Your task to perform on an android device: change the clock display to analog Image 0: 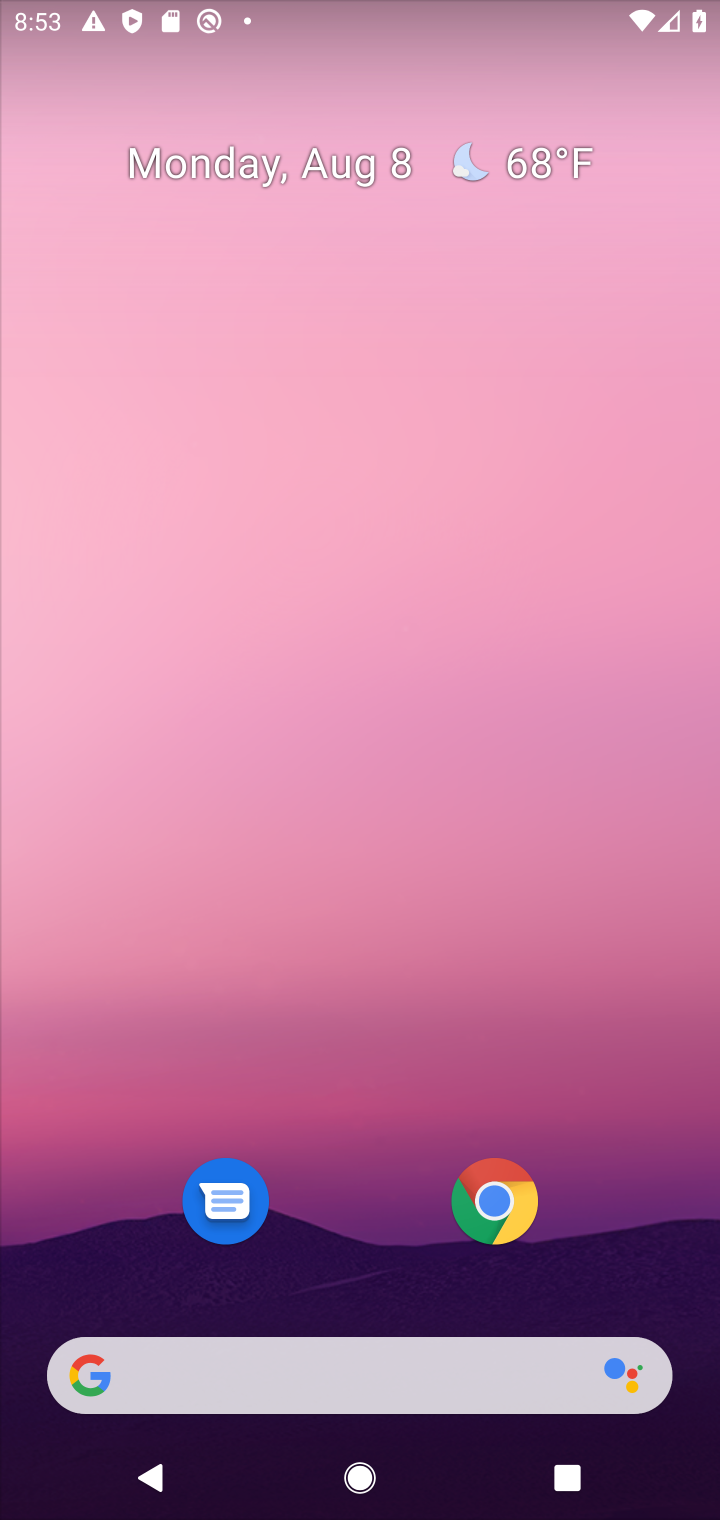
Step 0: press home button
Your task to perform on an android device: change the clock display to analog Image 1: 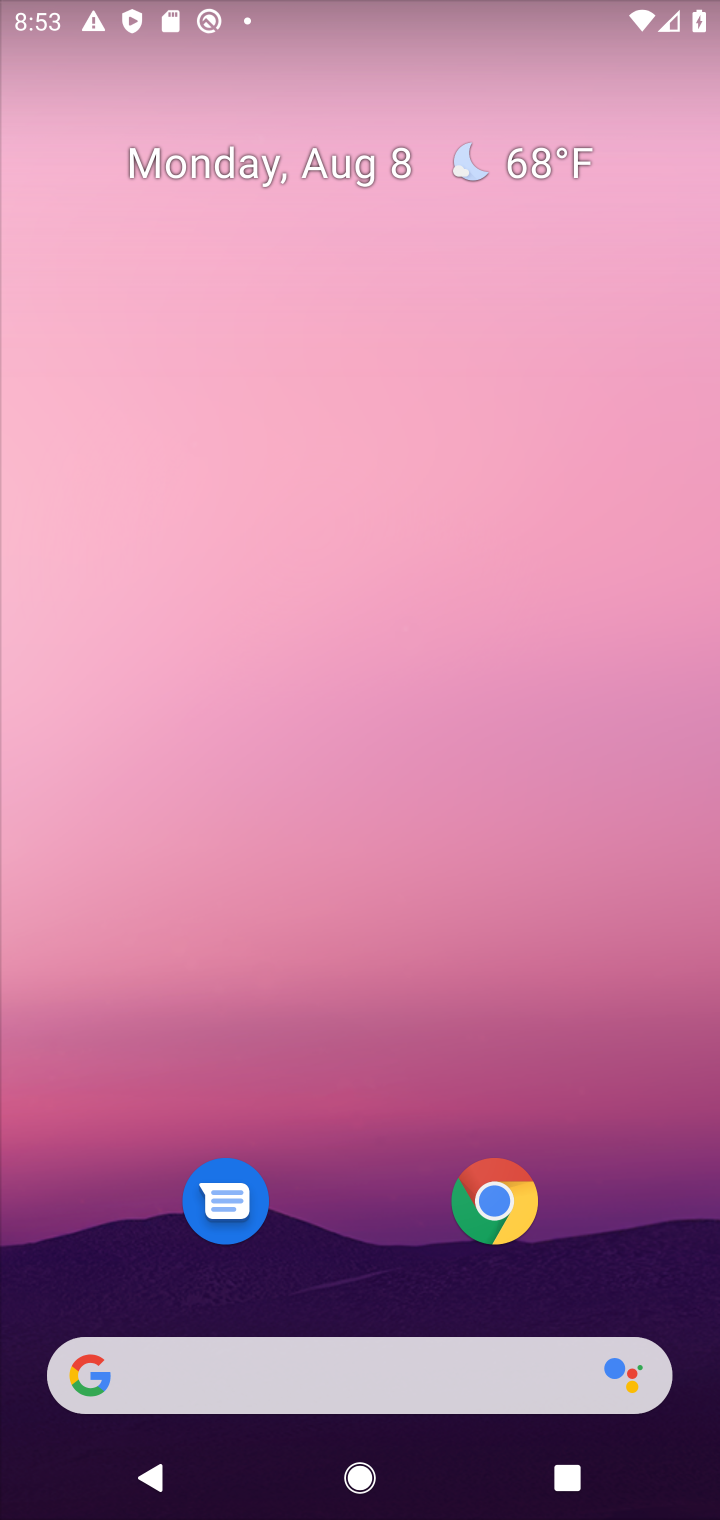
Step 1: drag from (604, 1274) to (608, 260)
Your task to perform on an android device: change the clock display to analog Image 2: 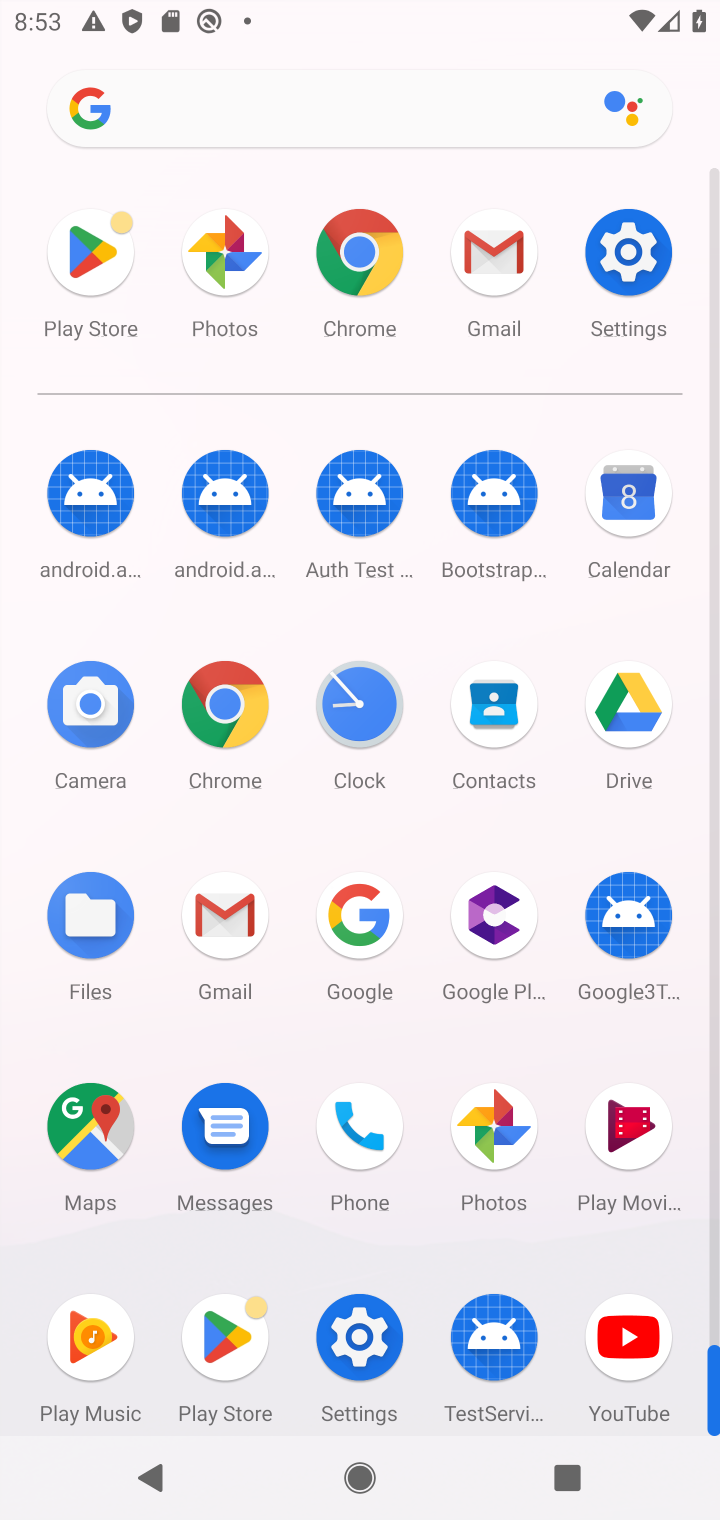
Step 2: click (352, 708)
Your task to perform on an android device: change the clock display to analog Image 3: 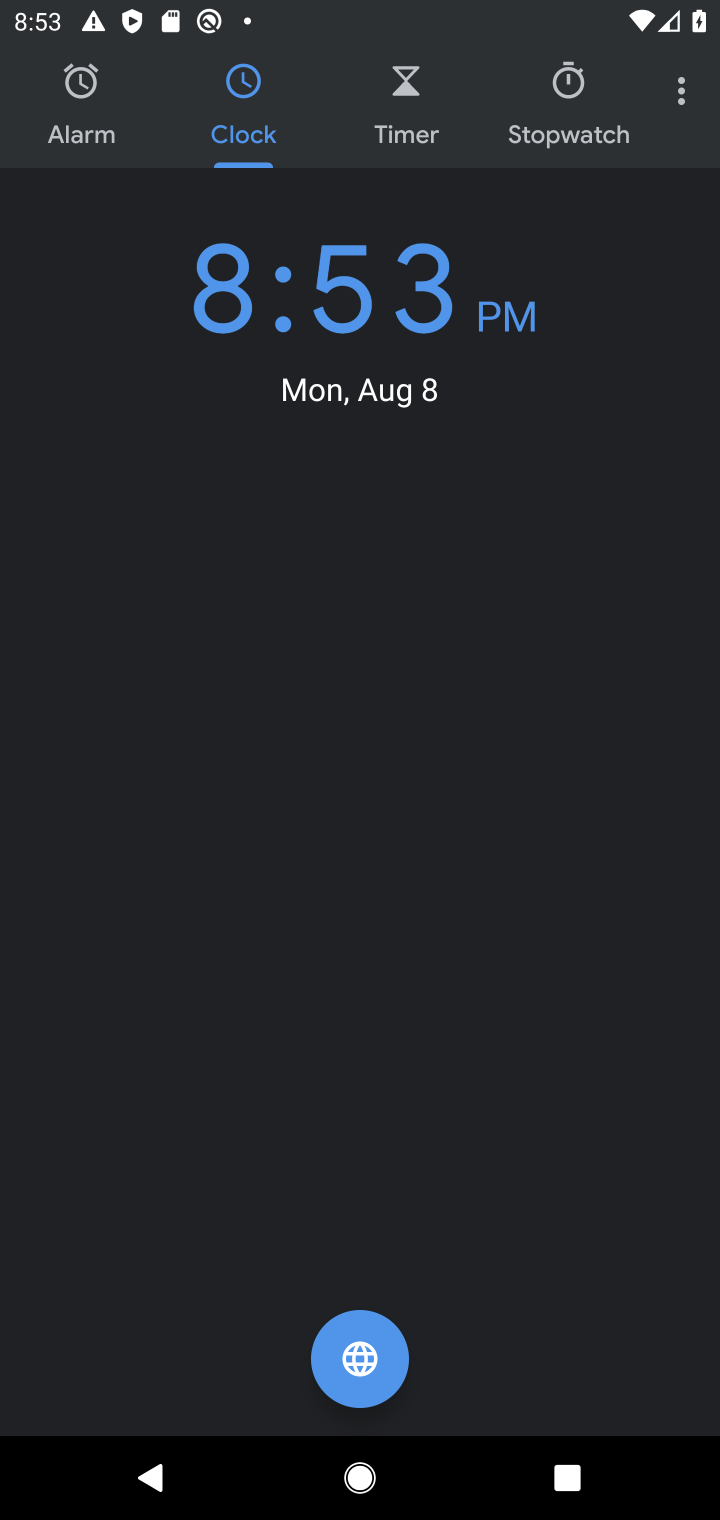
Step 3: click (682, 104)
Your task to perform on an android device: change the clock display to analog Image 4: 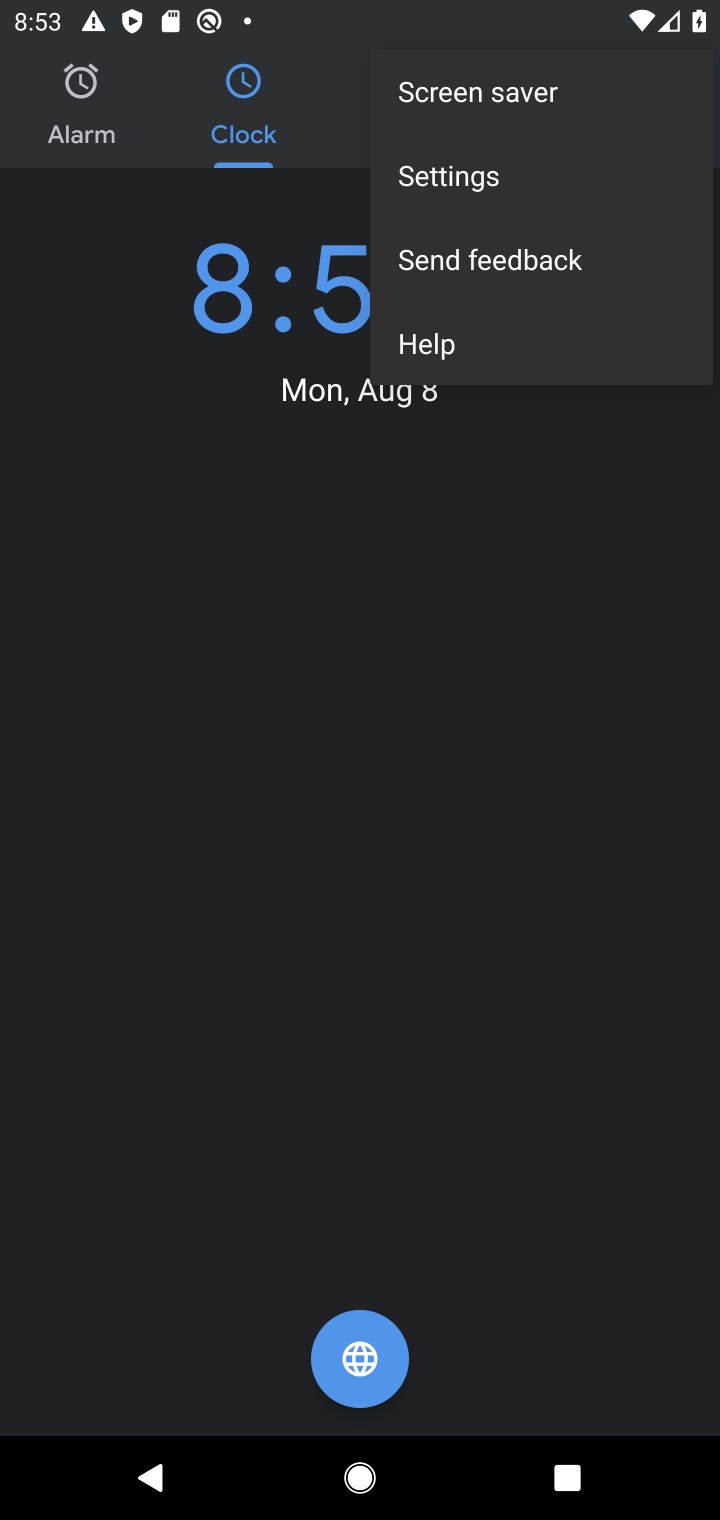
Step 4: click (493, 181)
Your task to perform on an android device: change the clock display to analog Image 5: 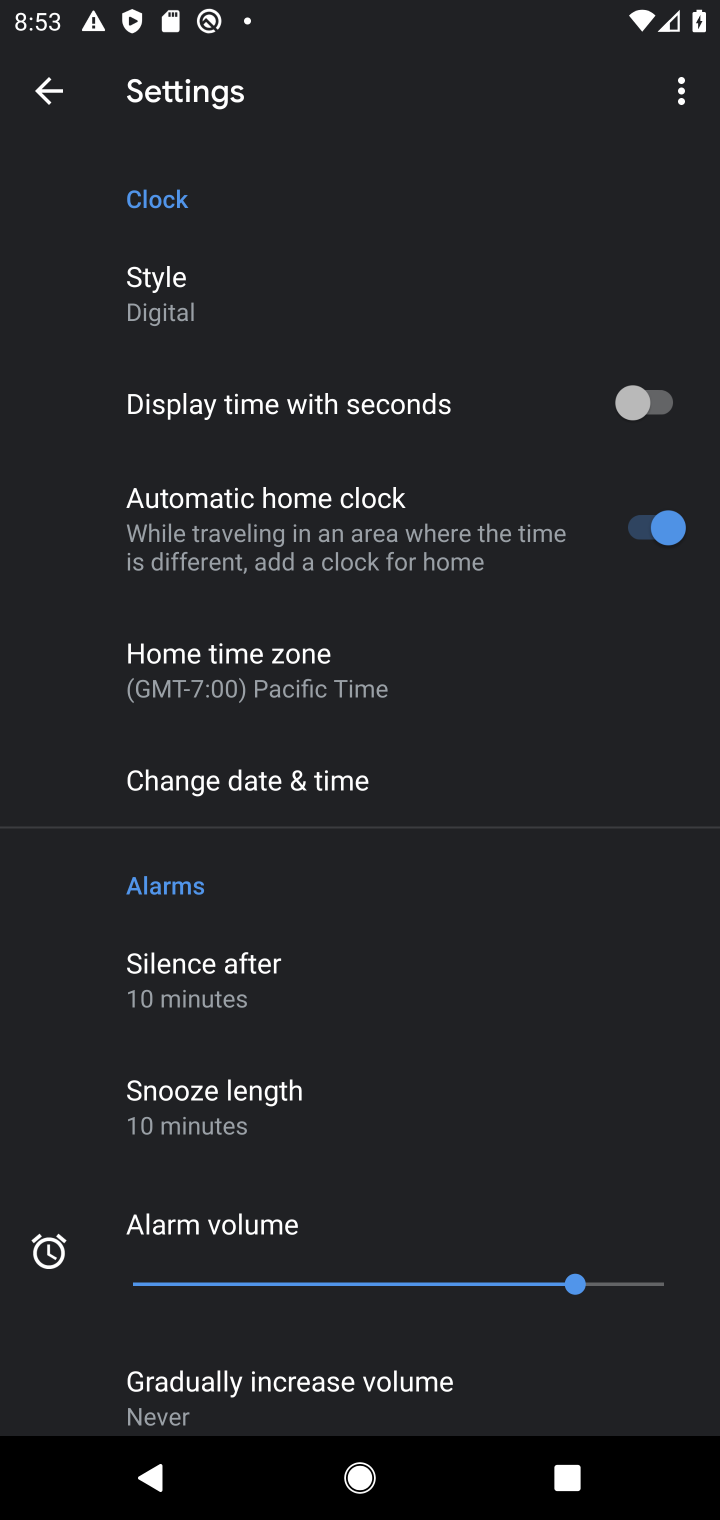
Step 5: drag from (540, 868) to (568, 645)
Your task to perform on an android device: change the clock display to analog Image 6: 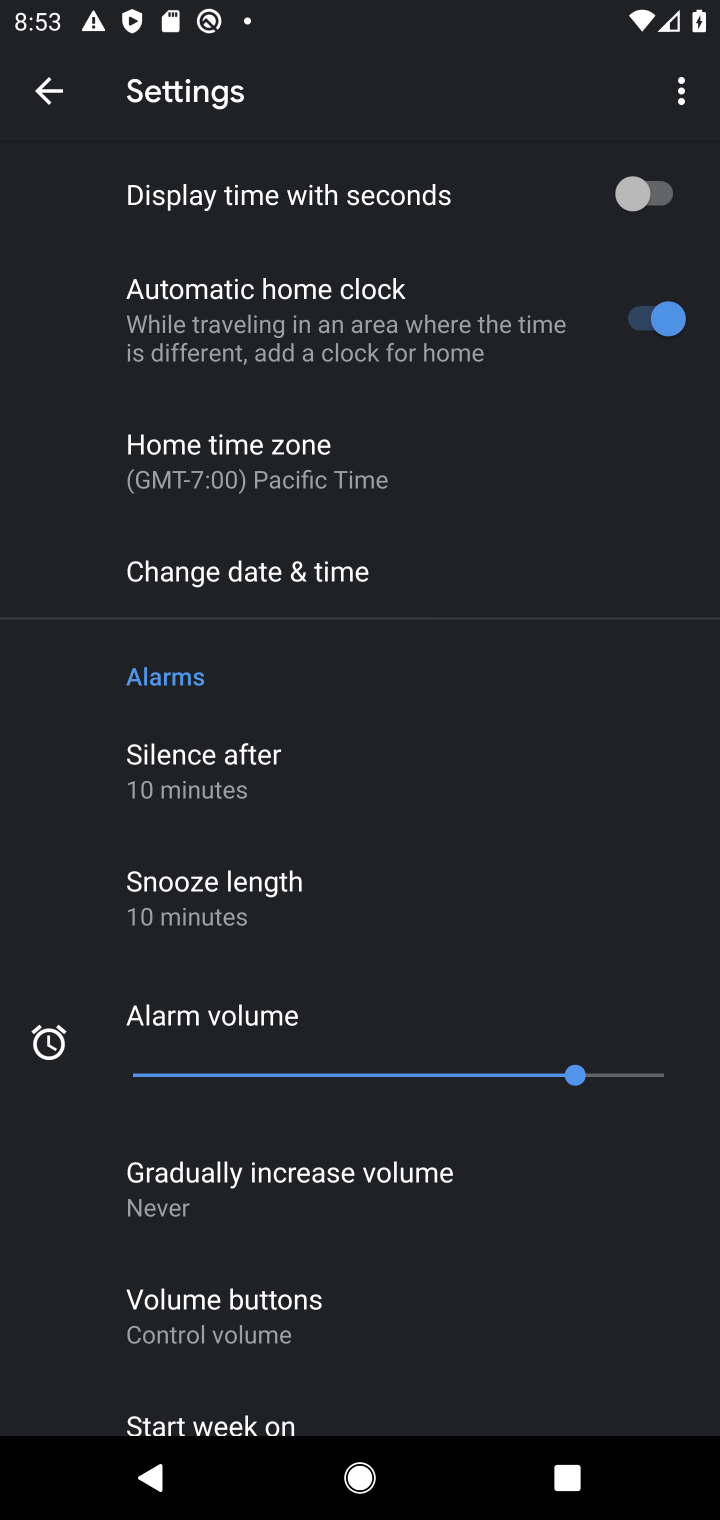
Step 6: drag from (542, 881) to (589, 564)
Your task to perform on an android device: change the clock display to analog Image 7: 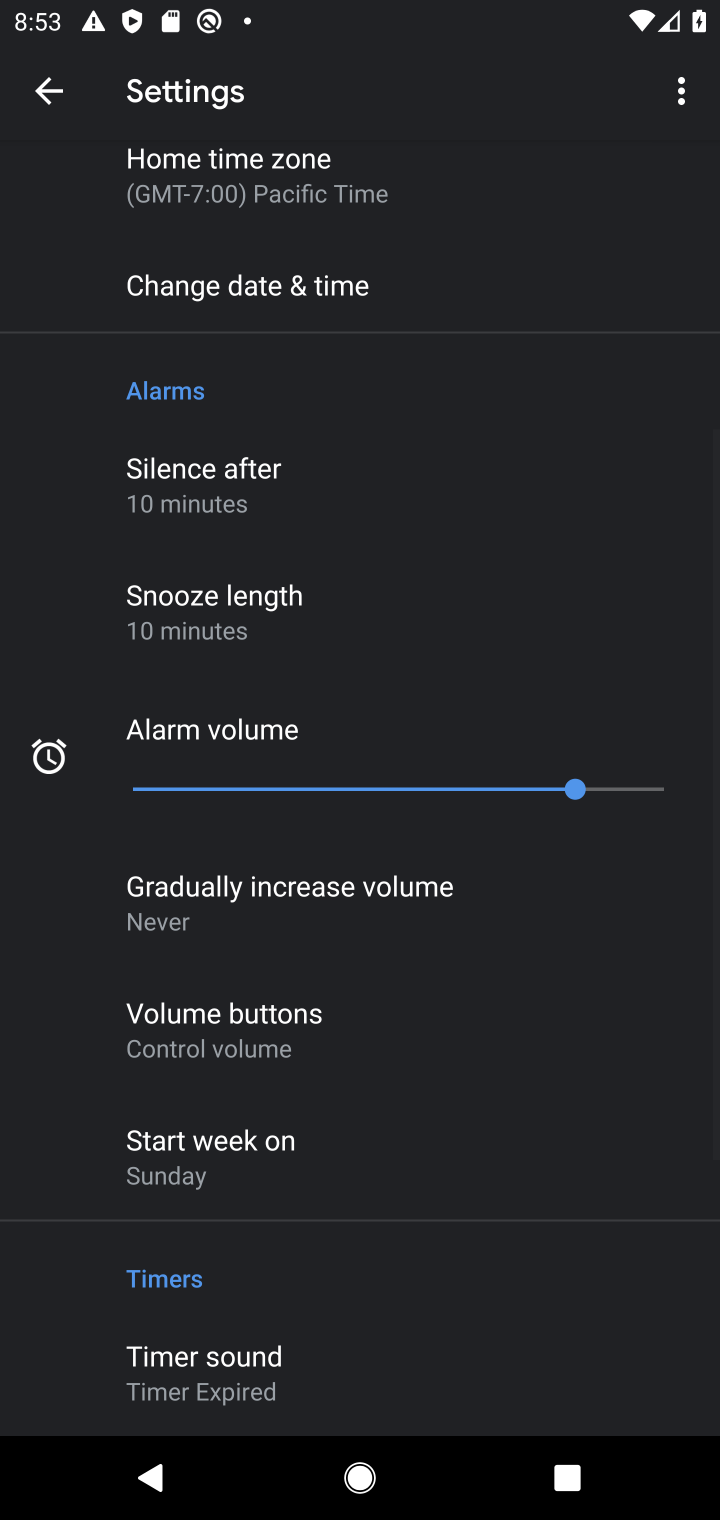
Step 7: drag from (571, 981) to (603, 695)
Your task to perform on an android device: change the clock display to analog Image 8: 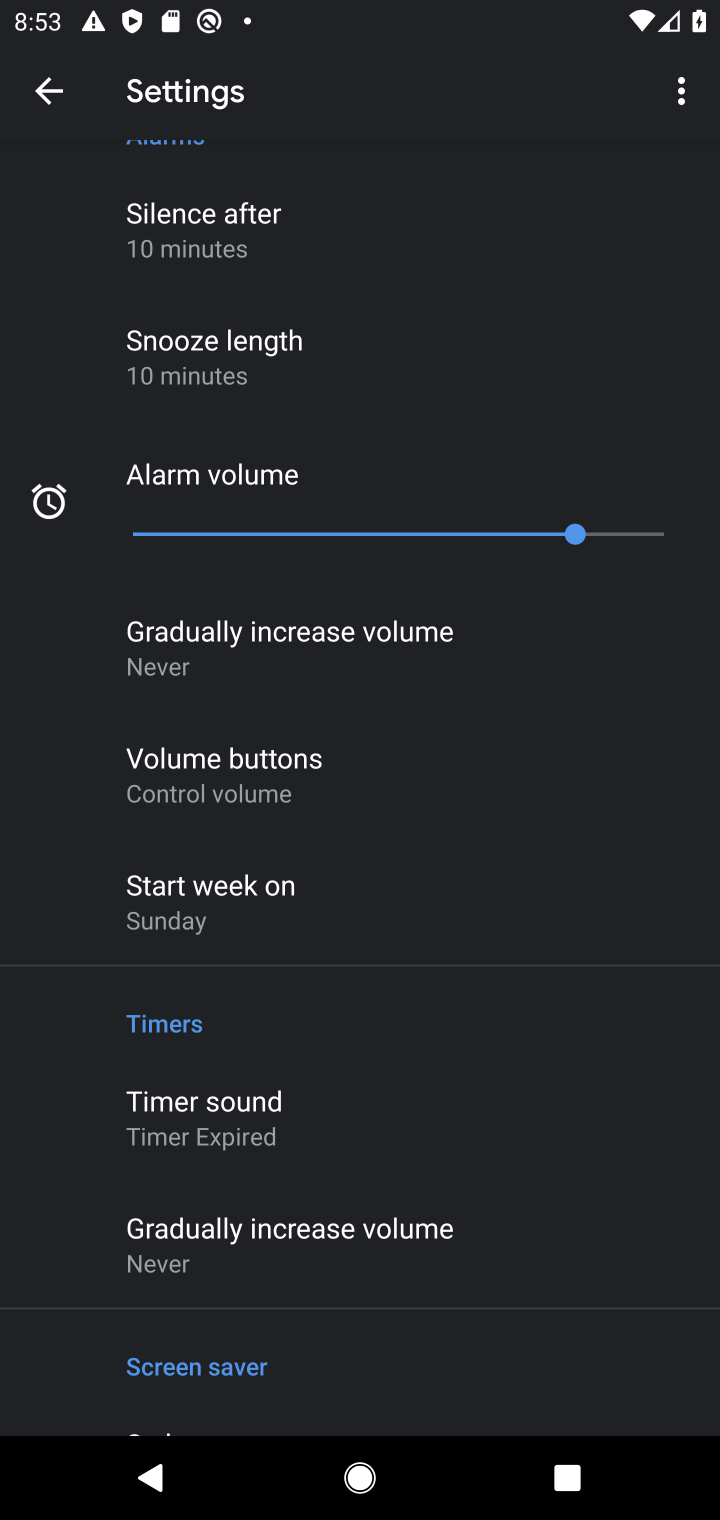
Step 8: drag from (599, 783) to (606, 669)
Your task to perform on an android device: change the clock display to analog Image 9: 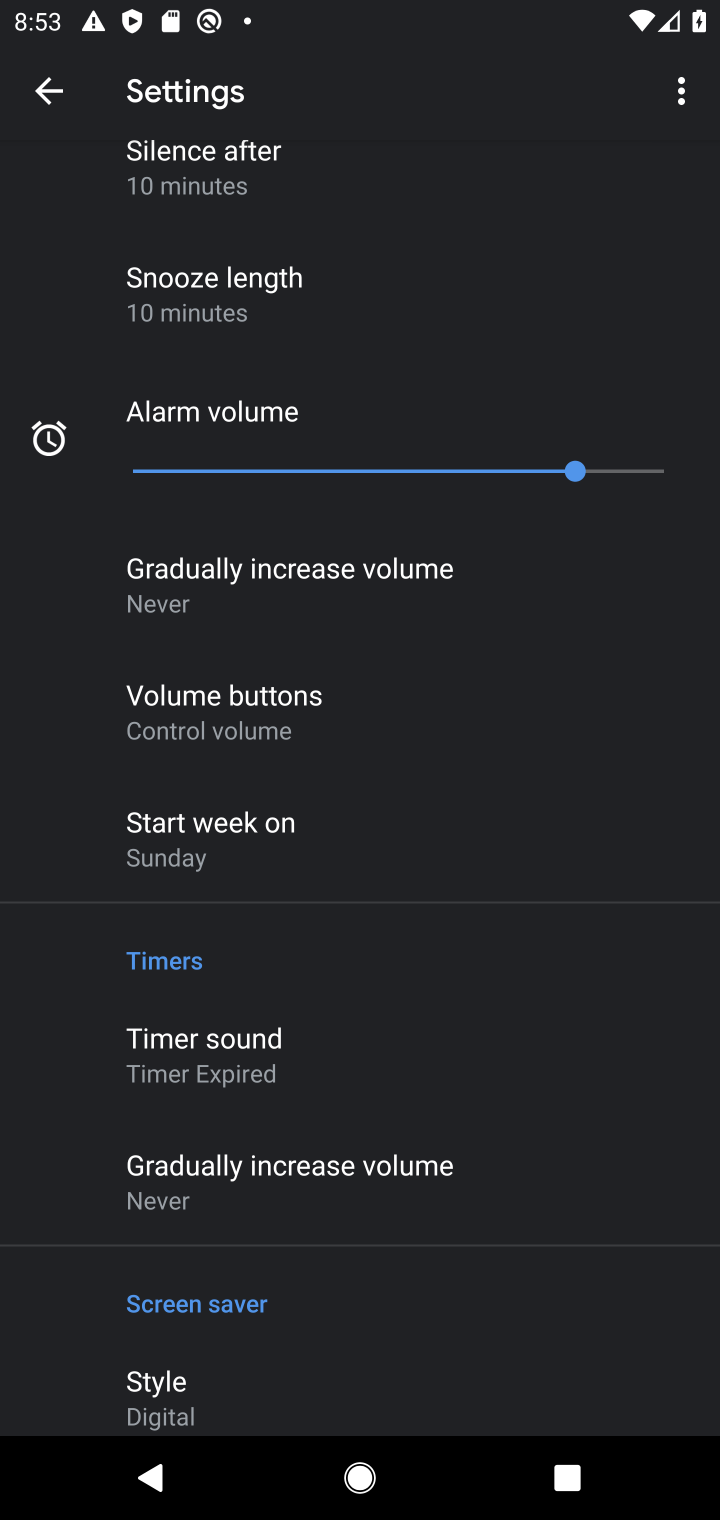
Step 9: drag from (631, 534) to (629, 741)
Your task to perform on an android device: change the clock display to analog Image 10: 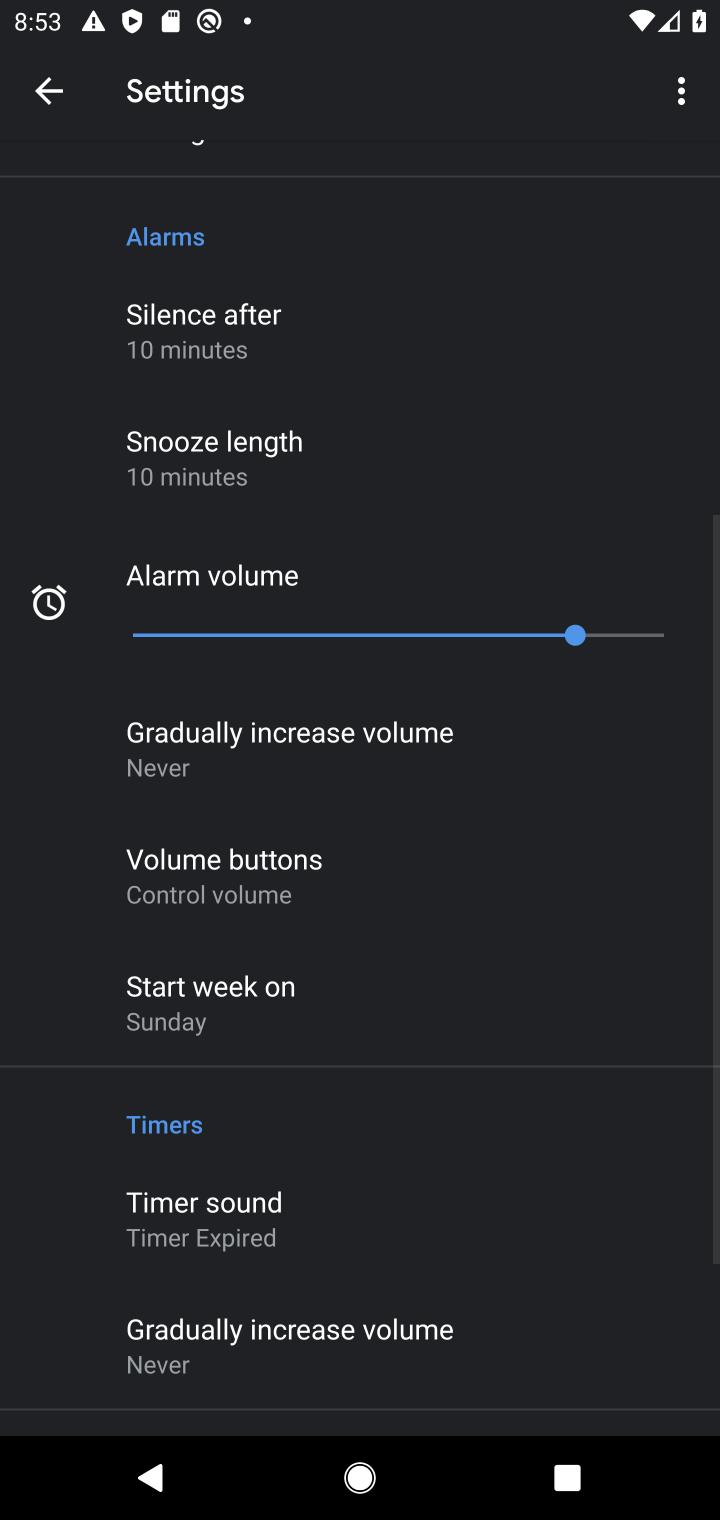
Step 10: drag from (623, 415) to (627, 729)
Your task to perform on an android device: change the clock display to analog Image 11: 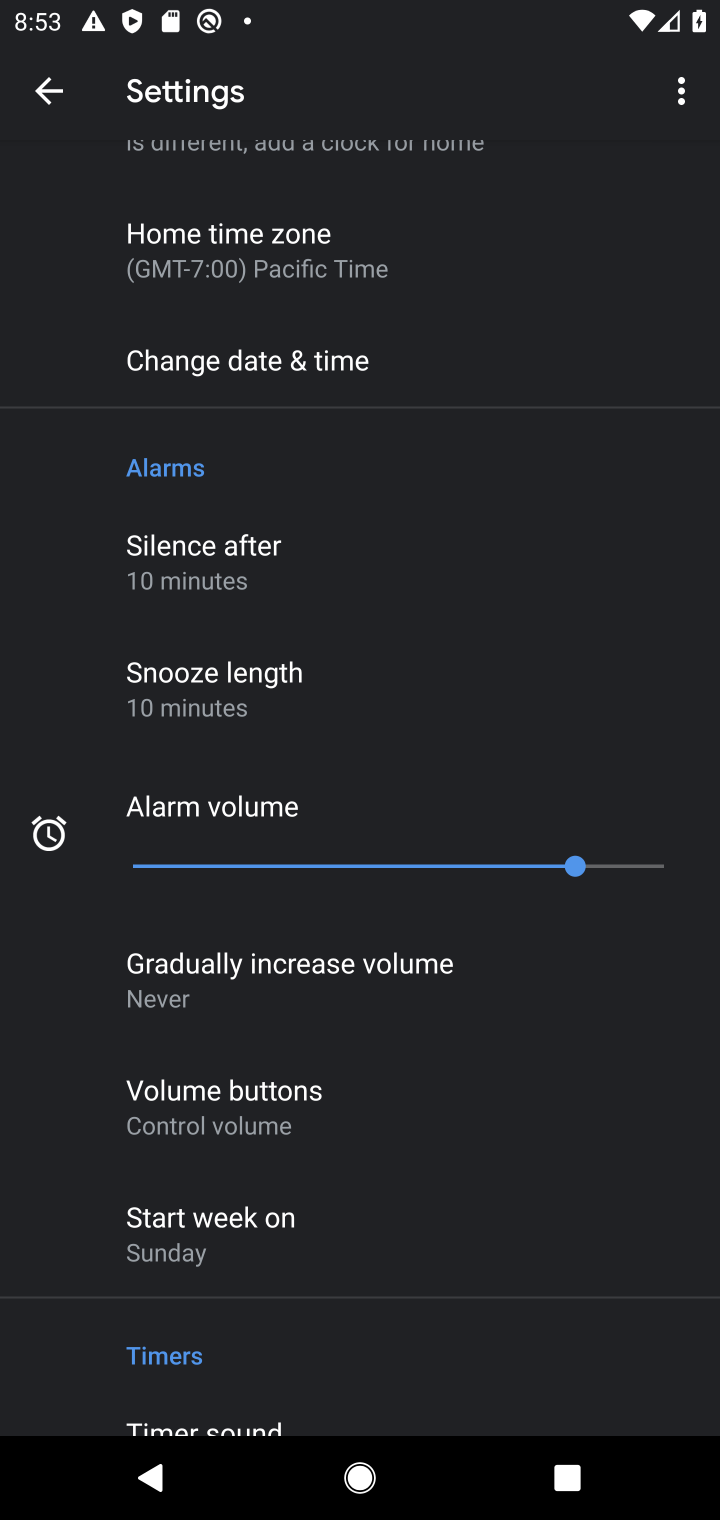
Step 11: drag from (621, 500) to (631, 716)
Your task to perform on an android device: change the clock display to analog Image 12: 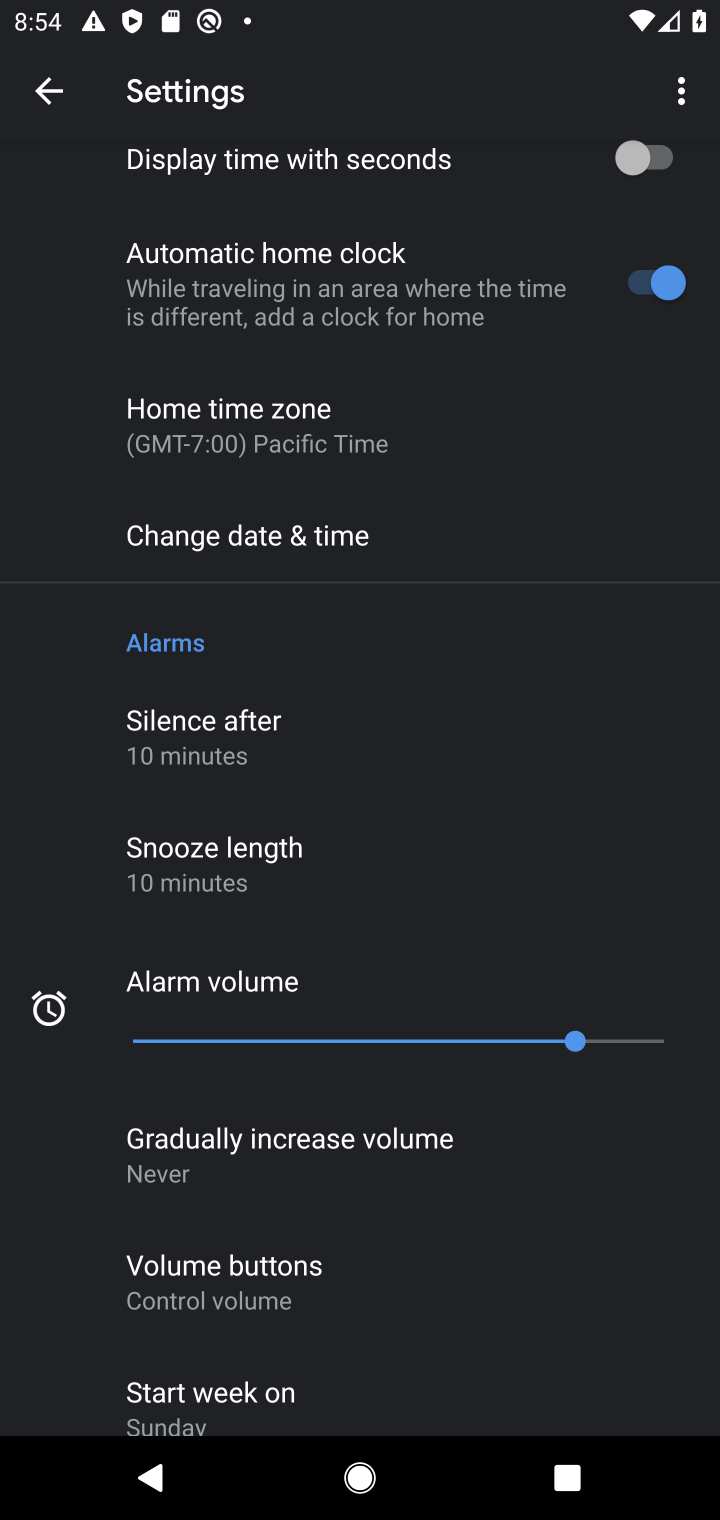
Step 12: drag from (581, 368) to (594, 665)
Your task to perform on an android device: change the clock display to analog Image 13: 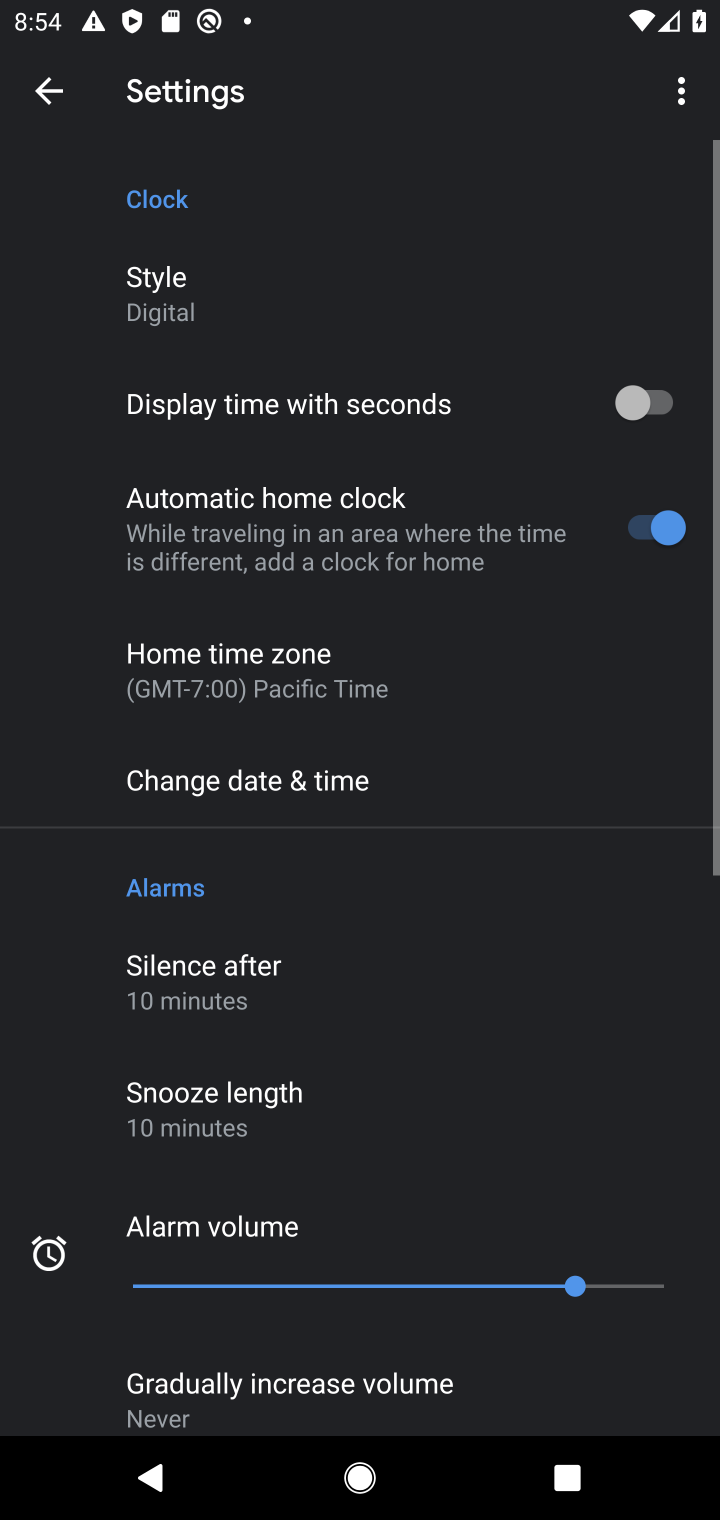
Step 13: drag from (519, 293) to (526, 608)
Your task to perform on an android device: change the clock display to analog Image 14: 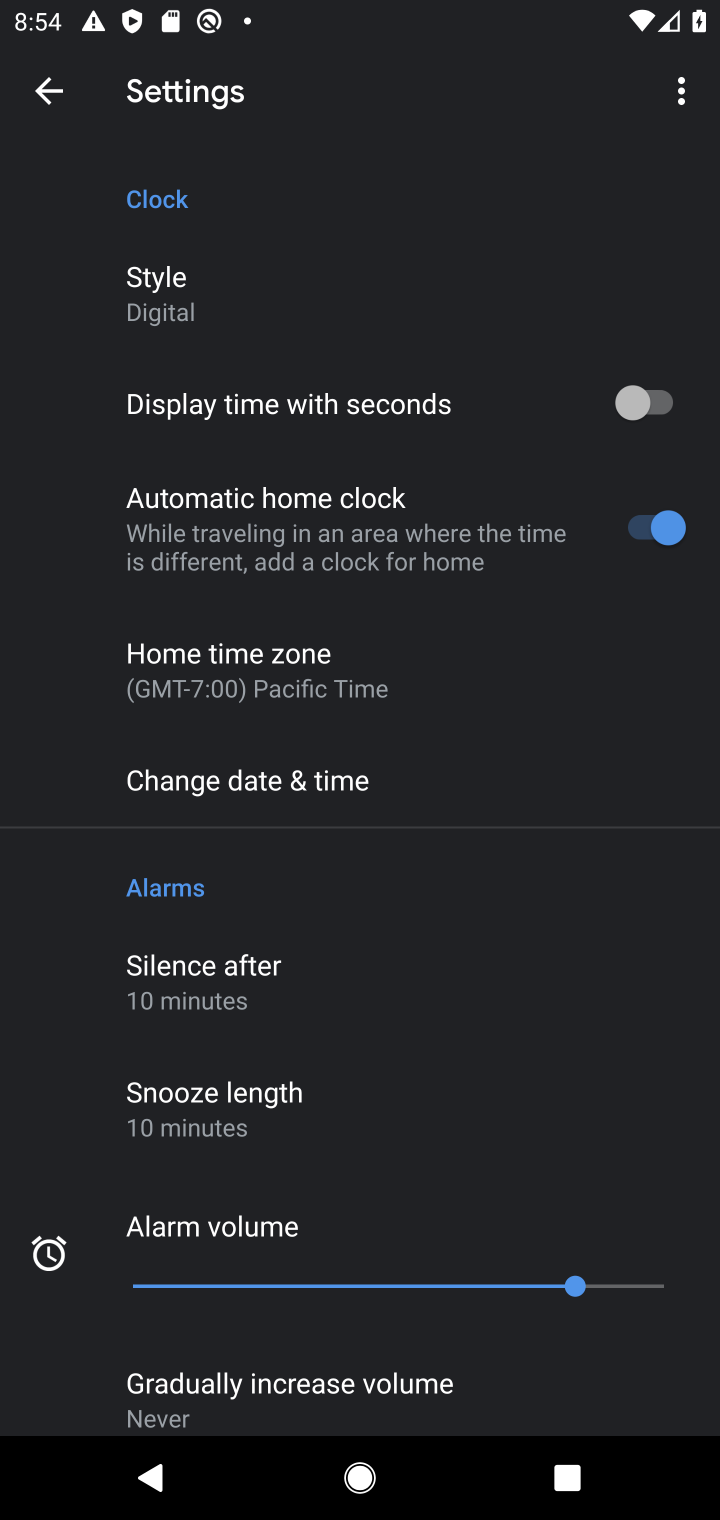
Step 14: click (256, 295)
Your task to perform on an android device: change the clock display to analog Image 15: 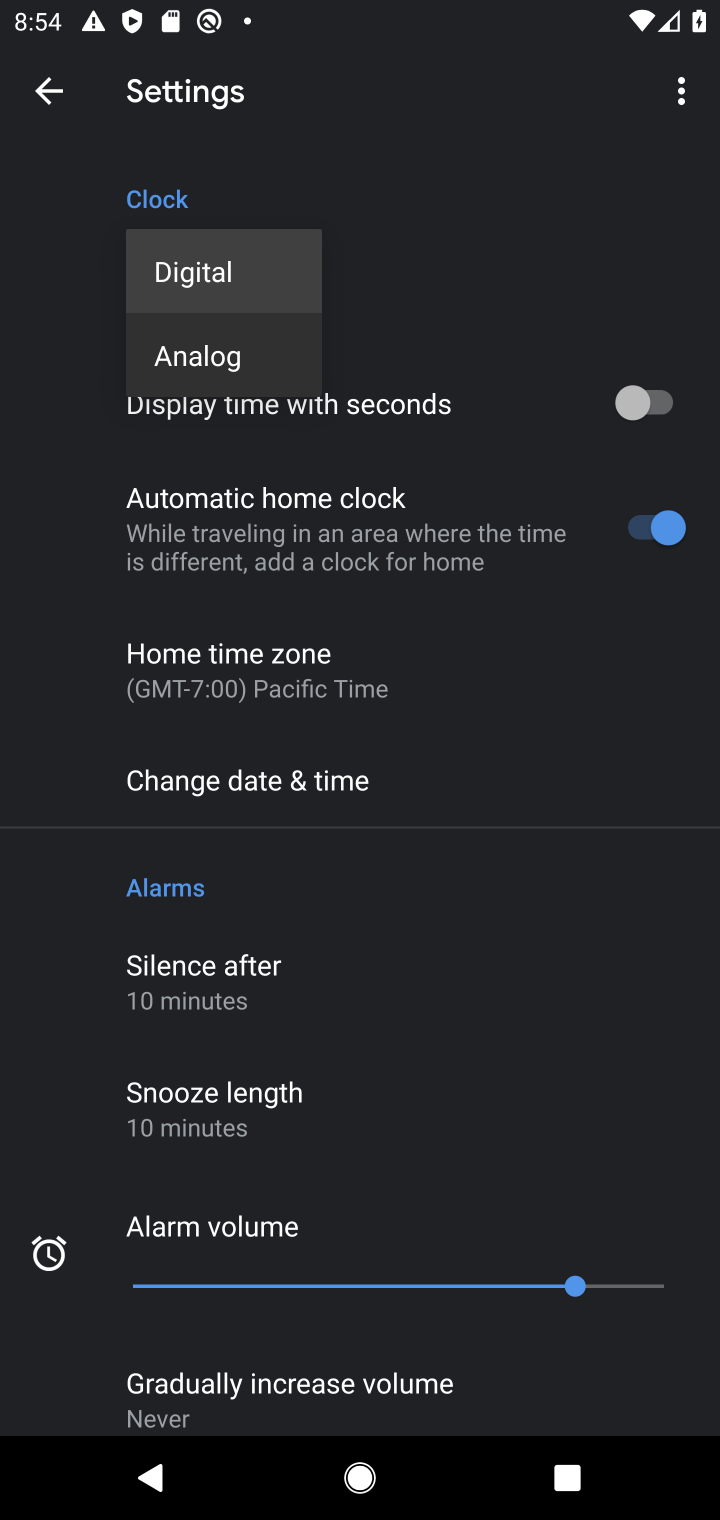
Step 15: click (248, 356)
Your task to perform on an android device: change the clock display to analog Image 16: 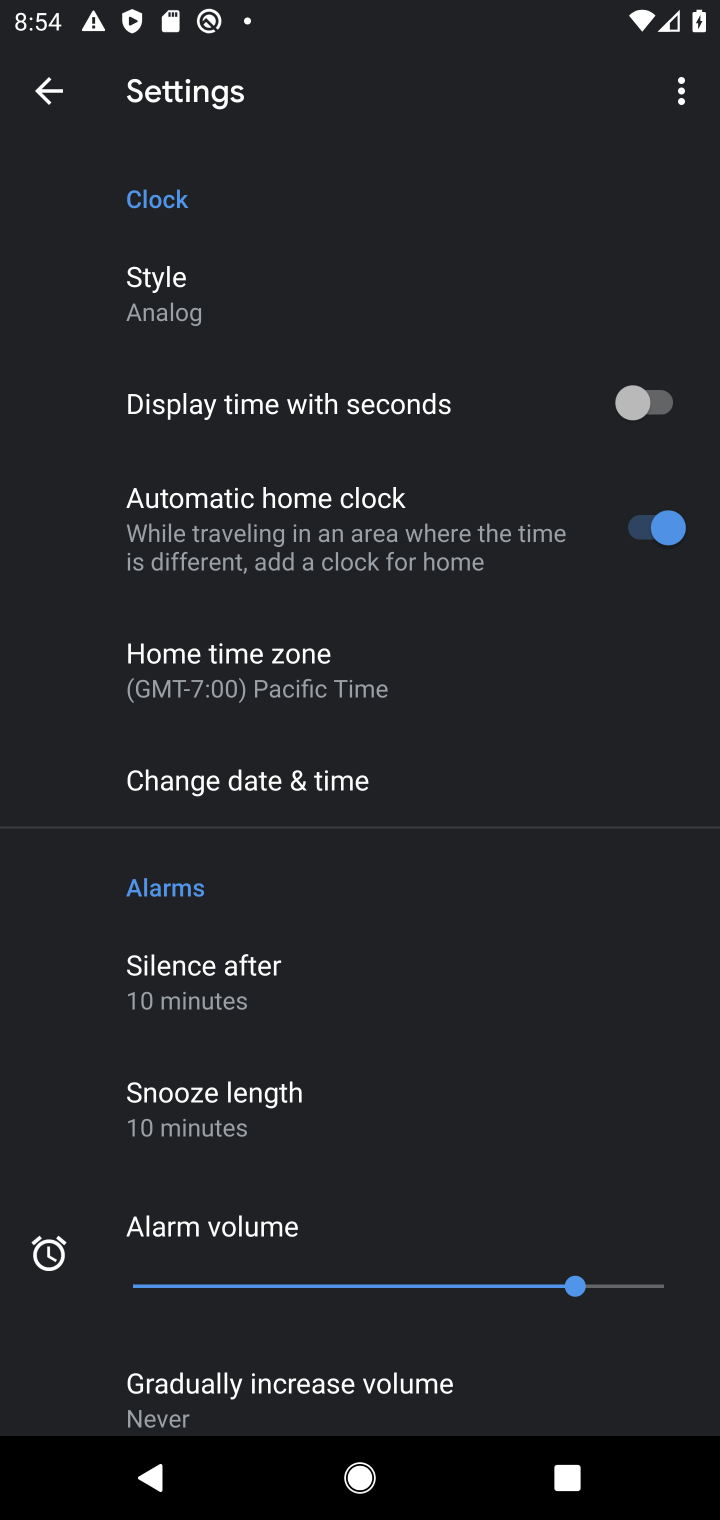
Step 16: task complete